Your task to perform on an android device: Check the news Image 0: 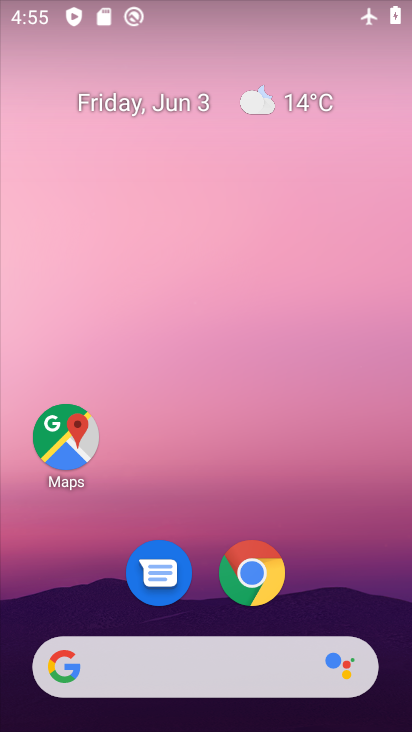
Step 0: click (211, 661)
Your task to perform on an android device: Check the news Image 1: 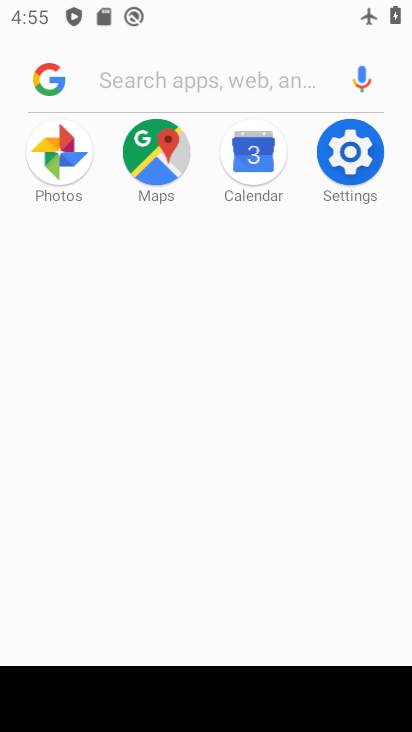
Step 1: type "news"
Your task to perform on an android device: Check the news Image 2: 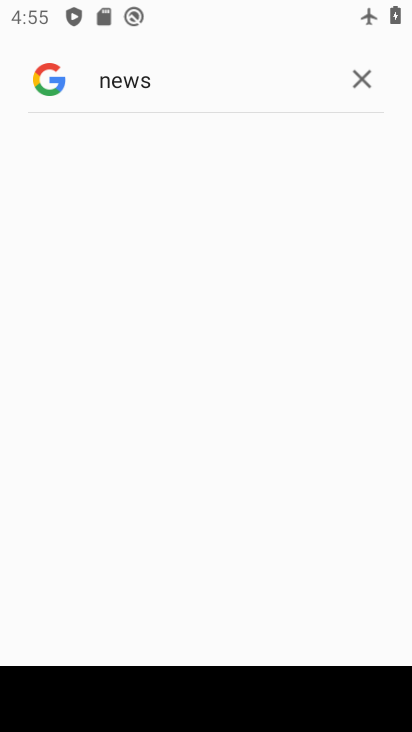
Step 2: drag from (160, 20) to (105, 578)
Your task to perform on an android device: Check the news Image 3: 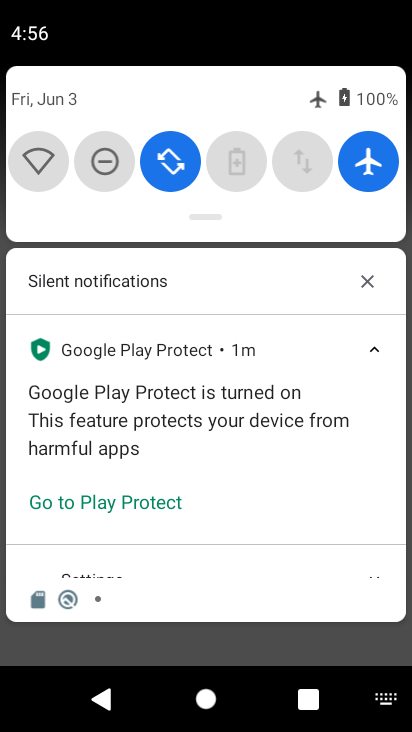
Step 3: click (360, 163)
Your task to perform on an android device: Check the news Image 4: 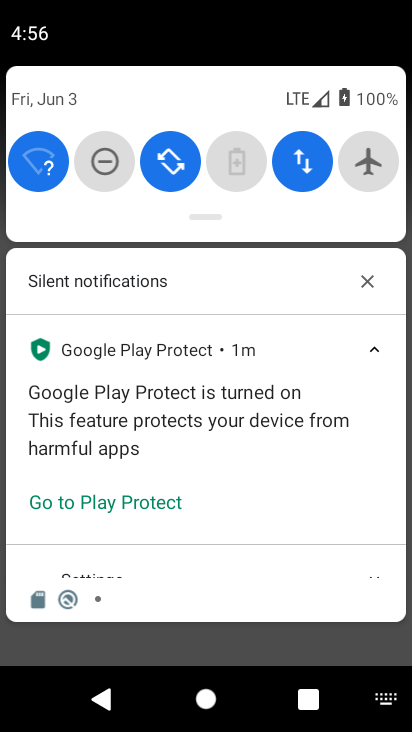
Step 4: drag from (250, 684) to (245, 227)
Your task to perform on an android device: Check the news Image 5: 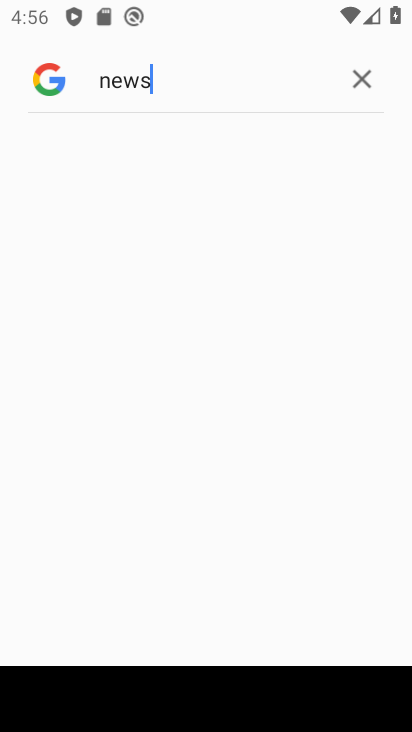
Step 5: click (357, 76)
Your task to perform on an android device: Check the news Image 6: 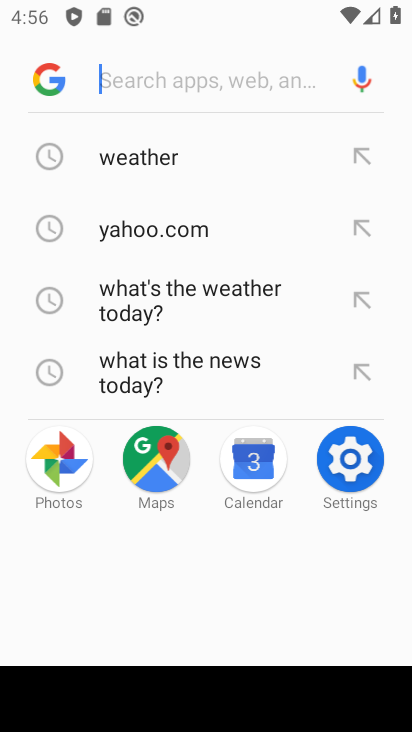
Step 6: type "news"
Your task to perform on an android device: Check the news Image 7: 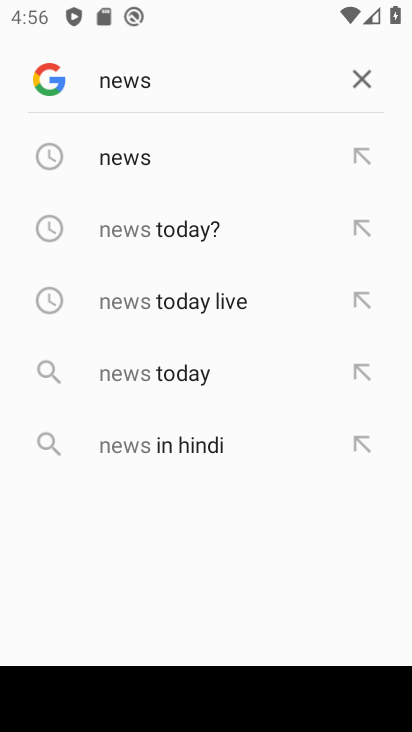
Step 7: click (104, 162)
Your task to perform on an android device: Check the news Image 8: 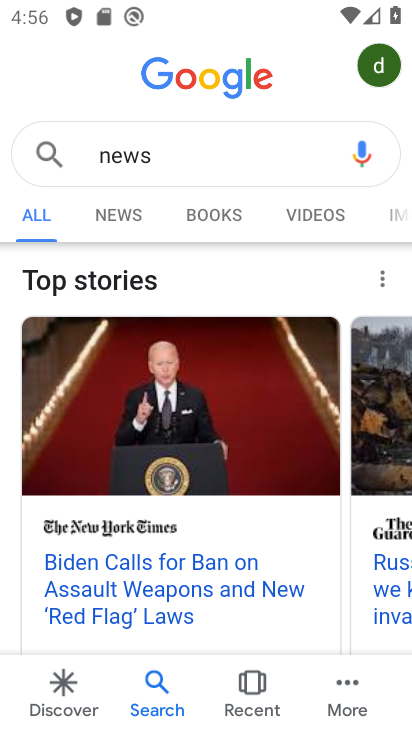
Step 8: task complete